Your task to perform on an android device: Turn on the flashlight Image 0: 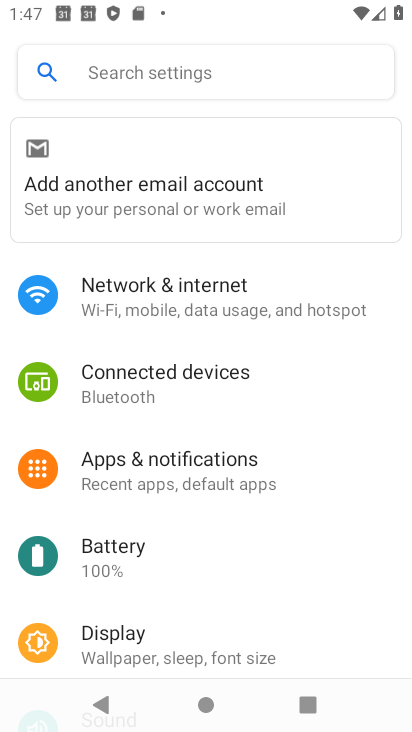
Step 0: click (113, 61)
Your task to perform on an android device: Turn on the flashlight Image 1: 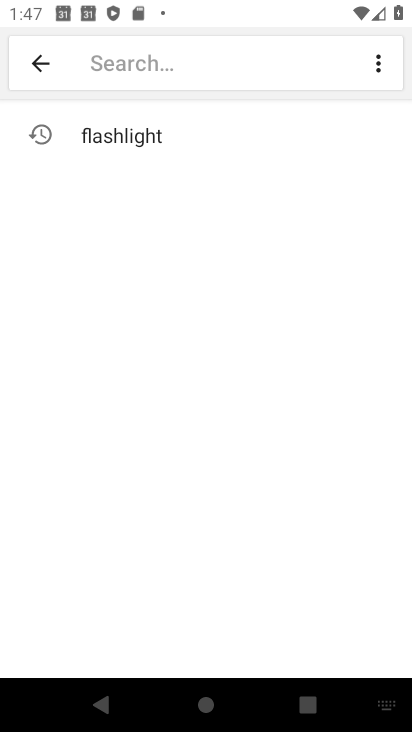
Step 1: click (142, 132)
Your task to perform on an android device: Turn on the flashlight Image 2: 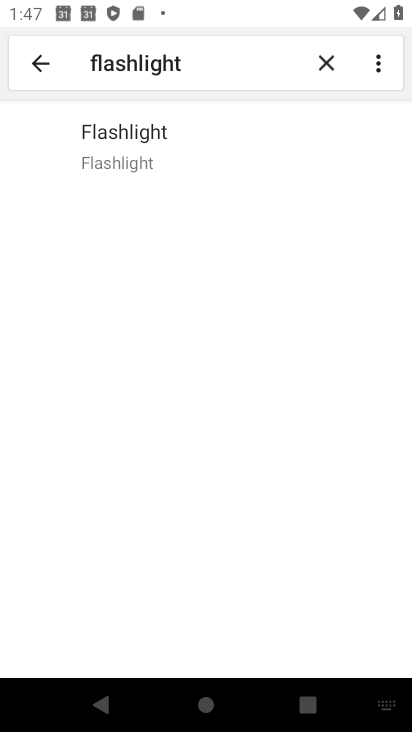
Step 2: task complete